Your task to perform on an android device: turn off improve location accuracy Image 0: 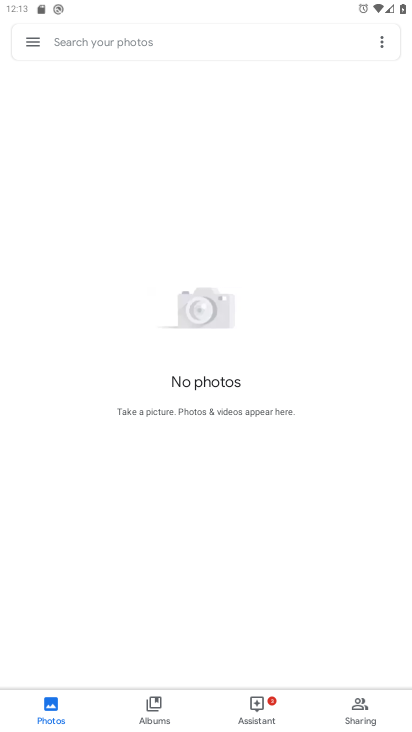
Step 0: press back button
Your task to perform on an android device: turn off improve location accuracy Image 1: 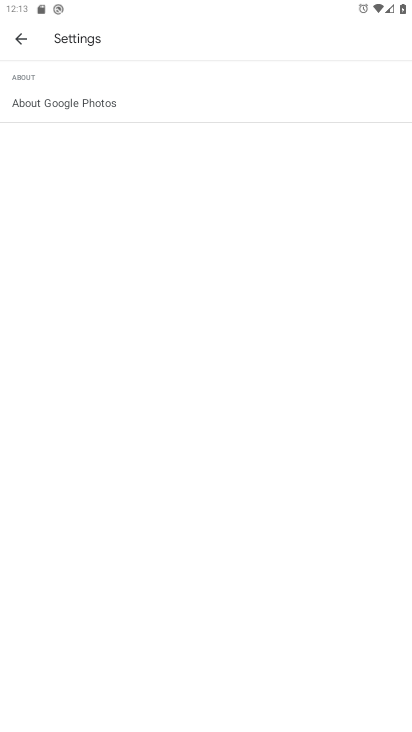
Step 1: click (15, 40)
Your task to perform on an android device: turn off improve location accuracy Image 2: 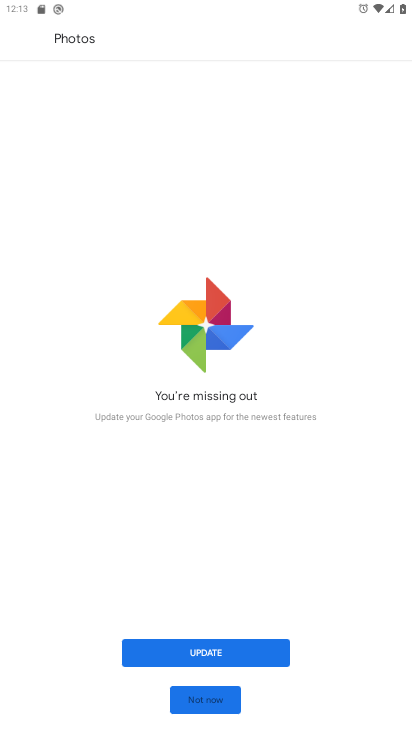
Step 2: click (226, 708)
Your task to perform on an android device: turn off improve location accuracy Image 3: 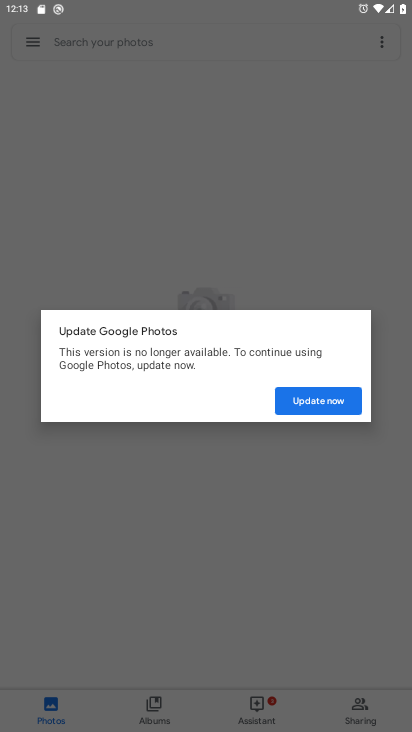
Step 3: click (222, 155)
Your task to perform on an android device: turn off improve location accuracy Image 4: 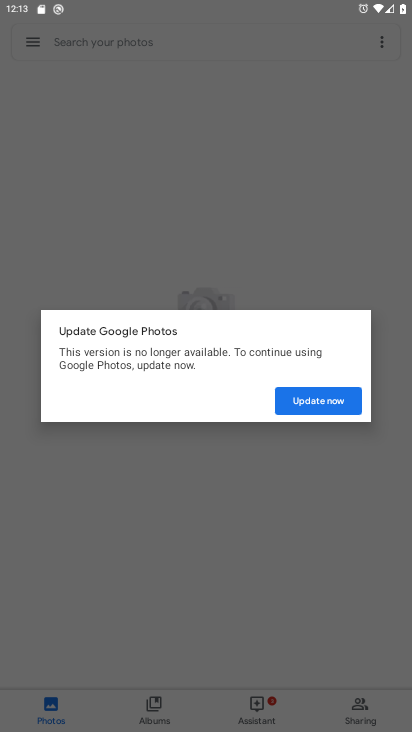
Step 4: click (228, 154)
Your task to perform on an android device: turn off improve location accuracy Image 5: 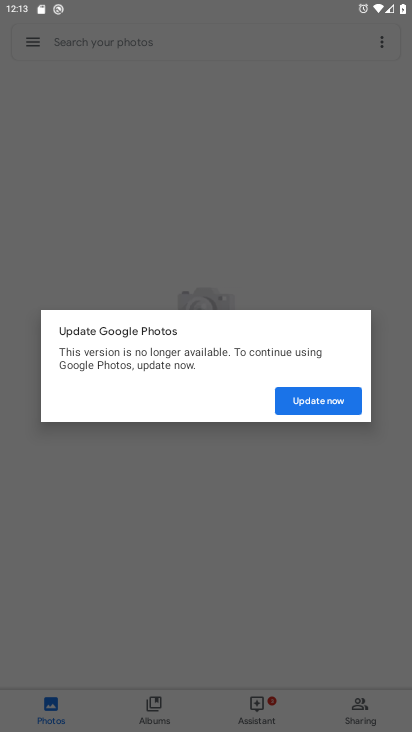
Step 5: click (228, 154)
Your task to perform on an android device: turn off improve location accuracy Image 6: 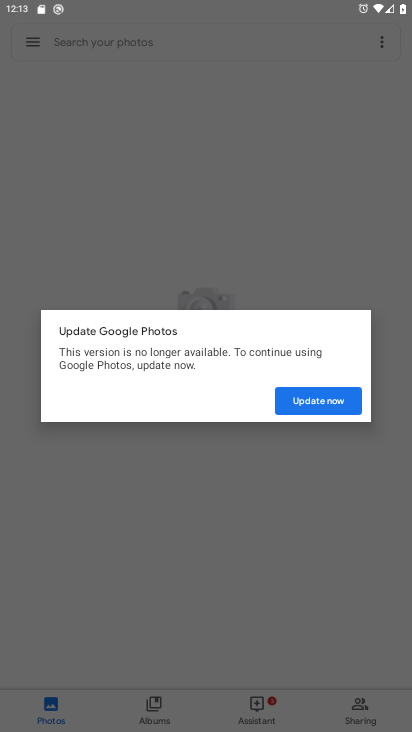
Step 6: press back button
Your task to perform on an android device: turn off improve location accuracy Image 7: 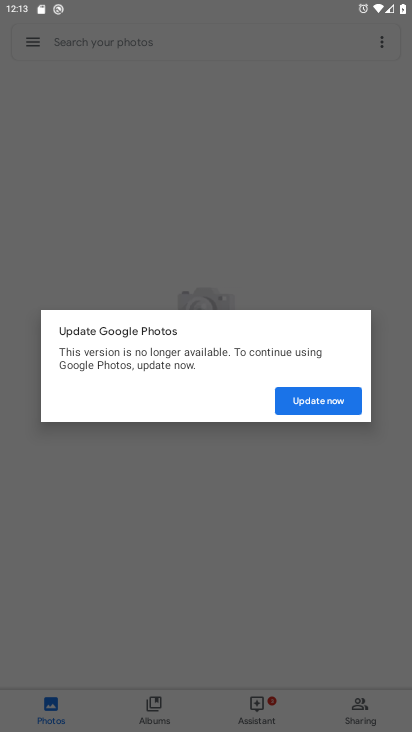
Step 7: press back button
Your task to perform on an android device: turn off improve location accuracy Image 8: 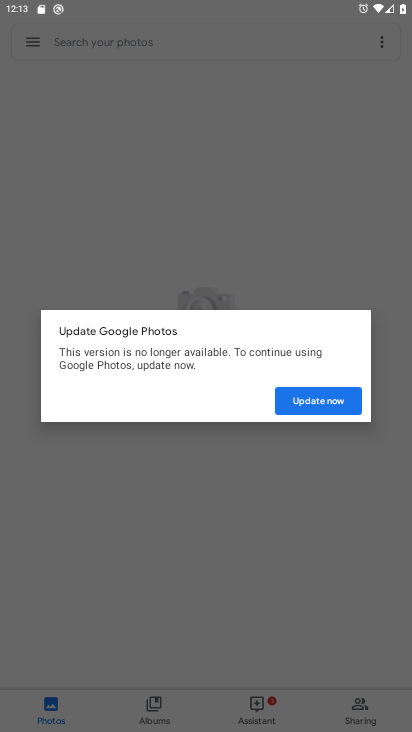
Step 8: press back button
Your task to perform on an android device: turn off improve location accuracy Image 9: 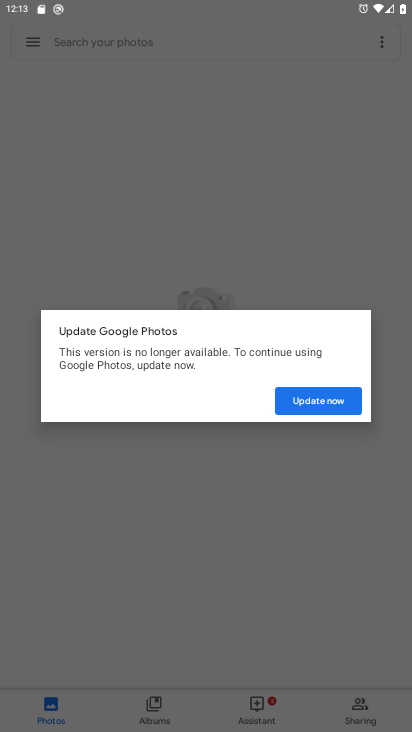
Step 9: press home button
Your task to perform on an android device: turn off improve location accuracy Image 10: 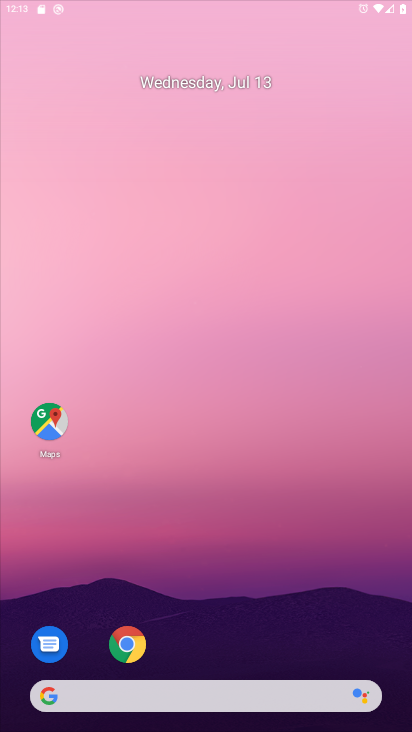
Step 10: click (345, 211)
Your task to perform on an android device: turn off improve location accuracy Image 11: 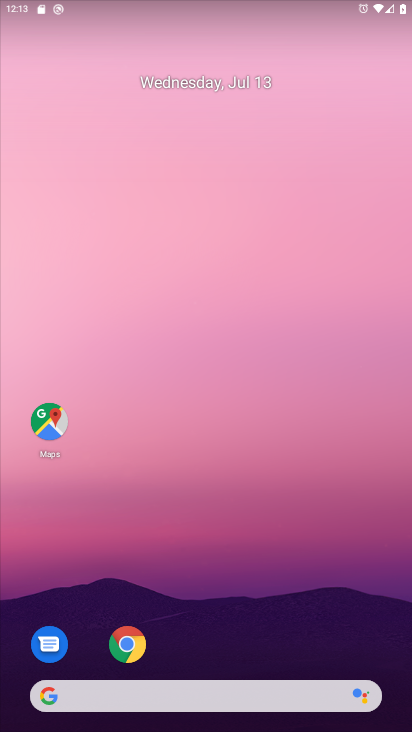
Step 11: drag from (154, 400) to (150, 298)
Your task to perform on an android device: turn off improve location accuracy Image 12: 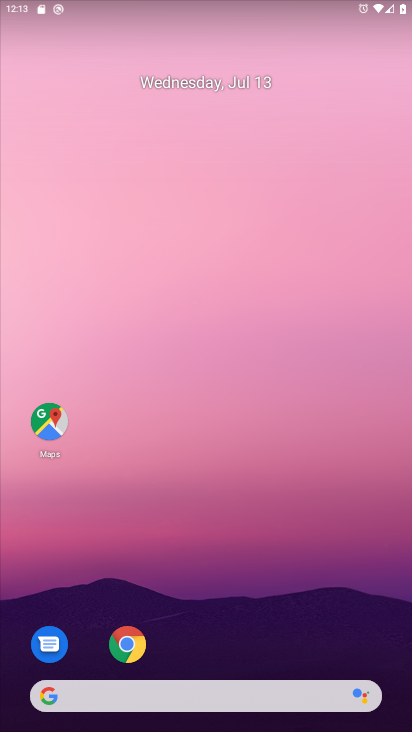
Step 12: drag from (280, 643) to (259, 293)
Your task to perform on an android device: turn off improve location accuracy Image 13: 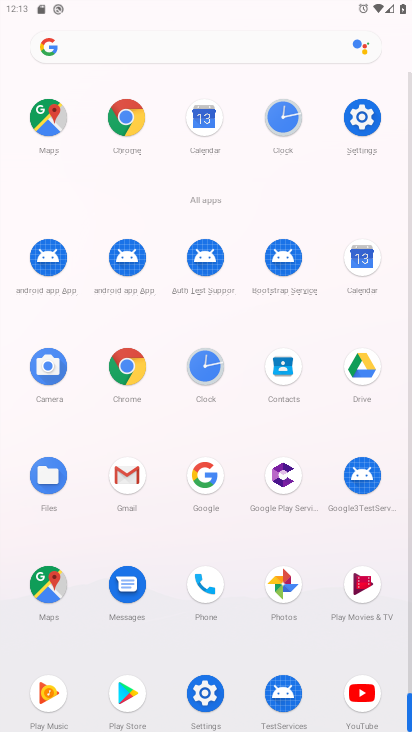
Step 13: click (363, 119)
Your task to perform on an android device: turn off improve location accuracy Image 14: 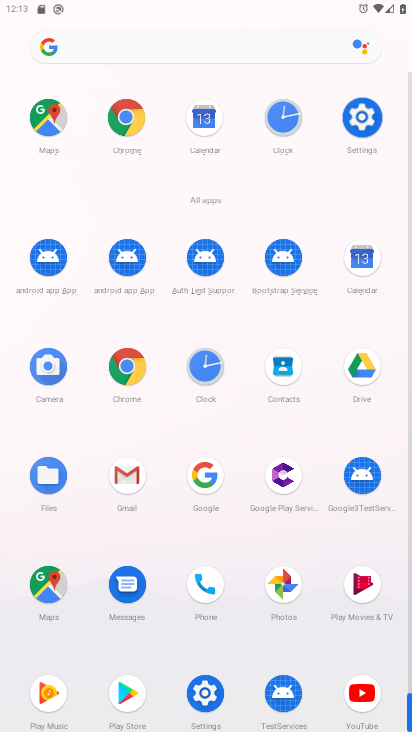
Step 14: click (363, 119)
Your task to perform on an android device: turn off improve location accuracy Image 15: 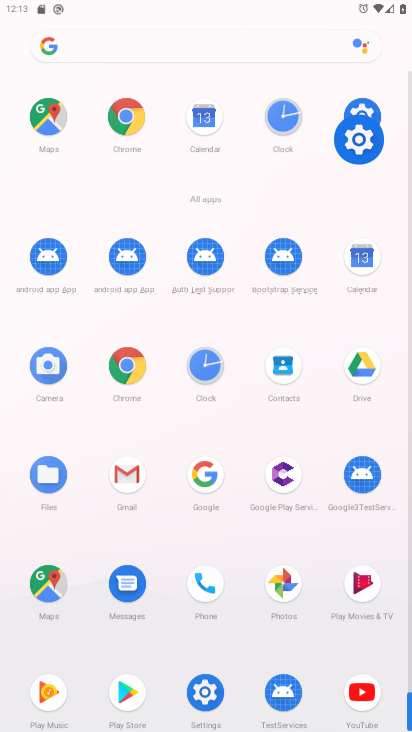
Step 15: click (363, 119)
Your task to perform on an android device: turn off improve location accuracy Image 16: 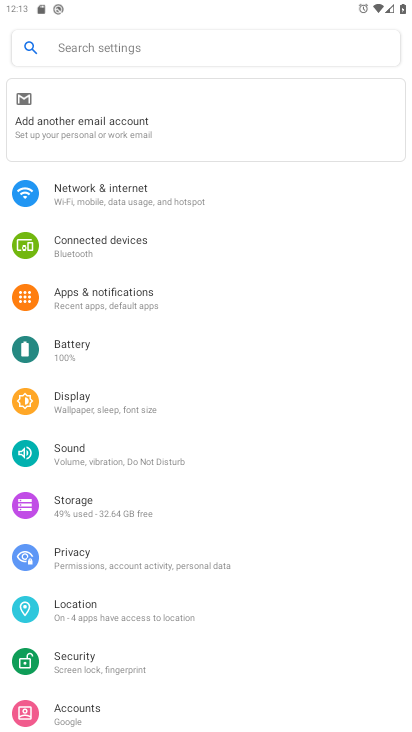
Step 16: click (67, 612)
Your task to perform on an android device: turn off improve location accuracy Image 17: 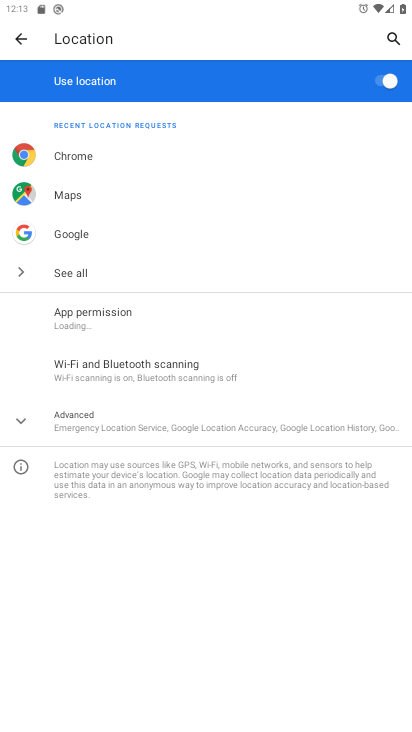
Step 17: click (85, 420)
Your task to perform on an android device: turn off improve location accuracy Image 18: 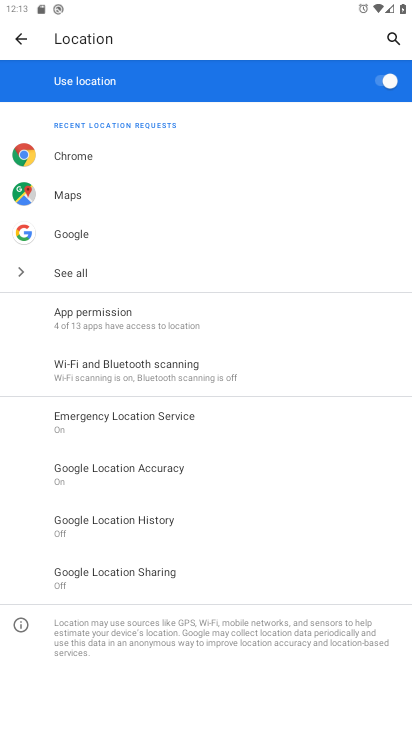
Step 18: click (118, 465)
Your task to perform on an android device: turn off improve location accuracy Image 19: 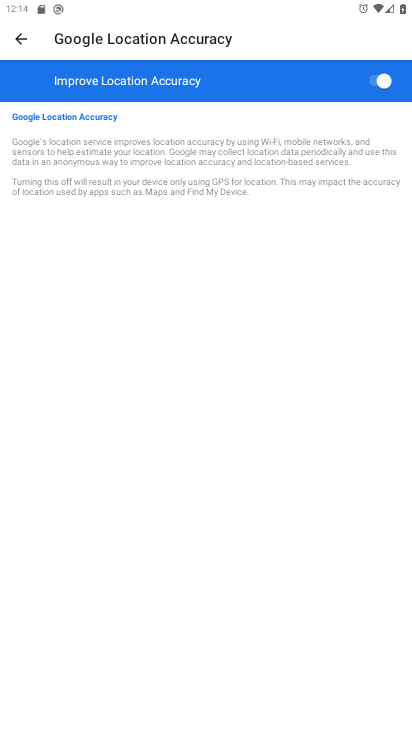
Step 19: click (372, 82)
Your task to perform on an android device: turn off improve location accuracy Image 20: 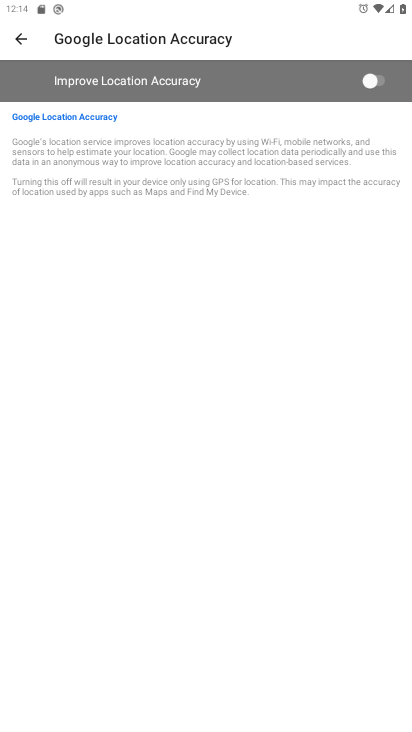
Step 20: task complete